Your task to perform on an android device: turn off location Image 0: 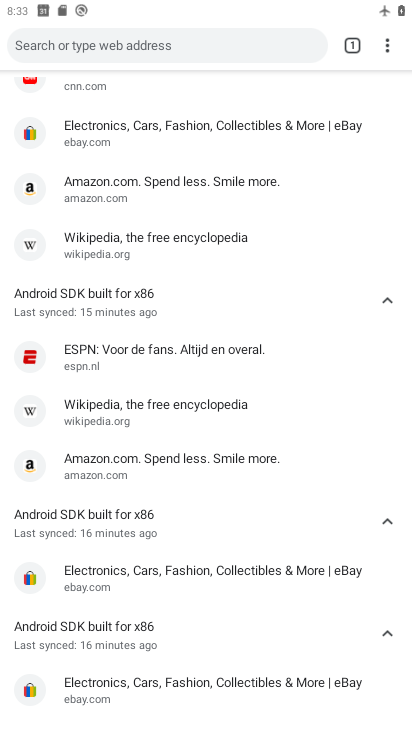
Step 0: press home button
Your task to perform on an android device: turn off location Image 1: 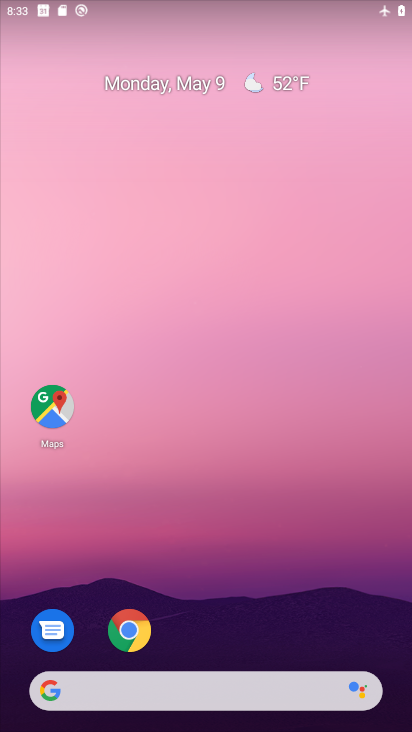
Step 1: drag from (235, 647) to (326, 126)
Your task to perform on an android device: turn off location Image 2: 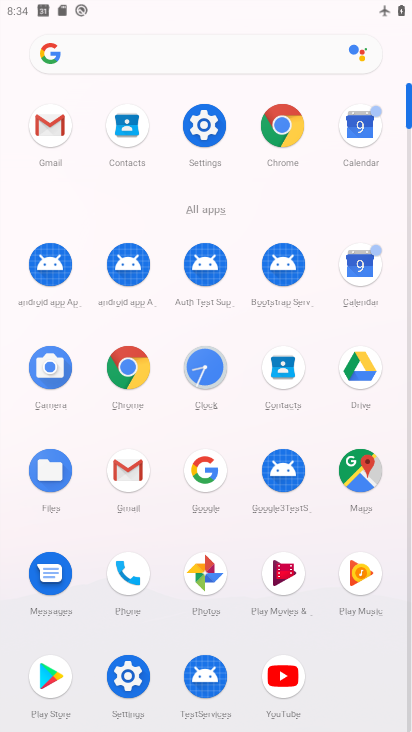
Step 2: click (138, 667)
Your task to perform on an android device: turn off location Image 3: 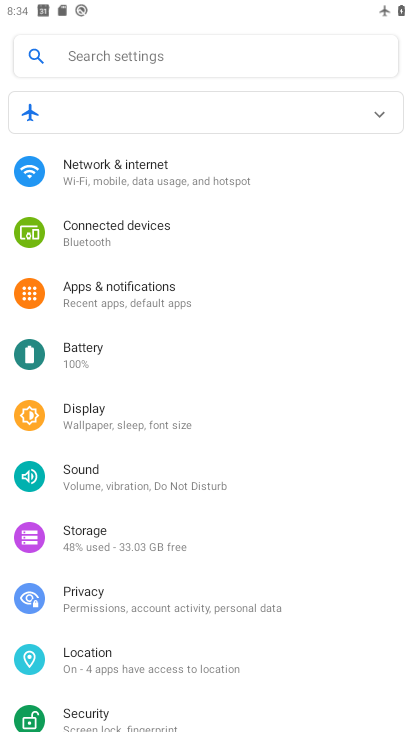
Step 3: click (106, 645)
Your task to perform on an android device: turn off location Image 4: 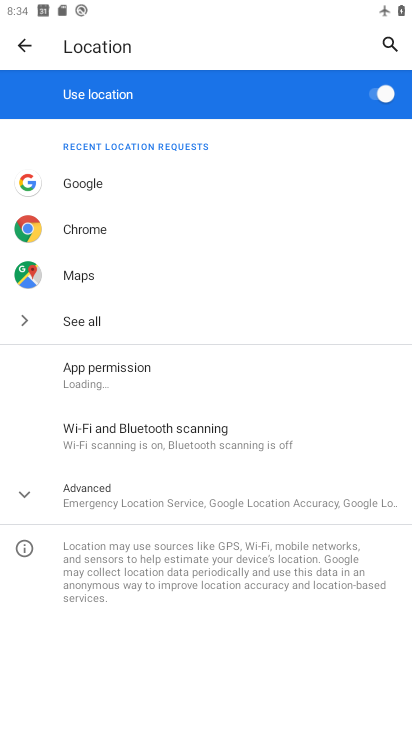
Step 4: click (369, 104)
Your task to perform on an android device: turn off location Image 5: 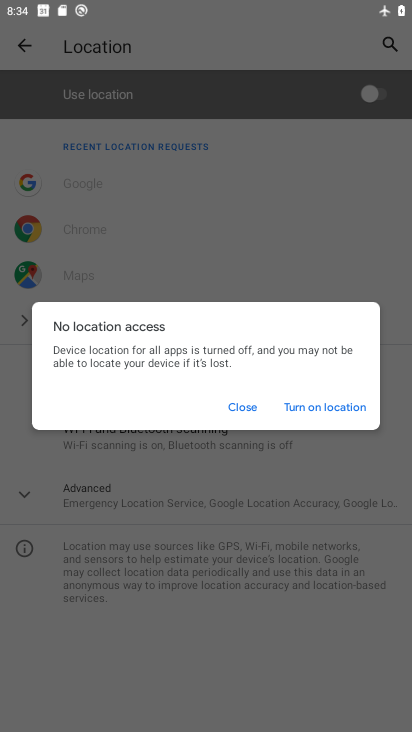
Step 5: click (249, 412)
Your task to perform on an android device: turn off location Image 6: 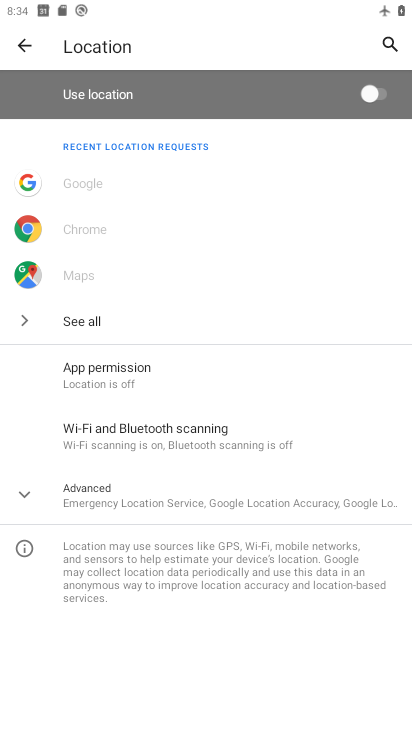
Step 6: task complete